Your task to perform on an android device: What is the news today? Image 0: 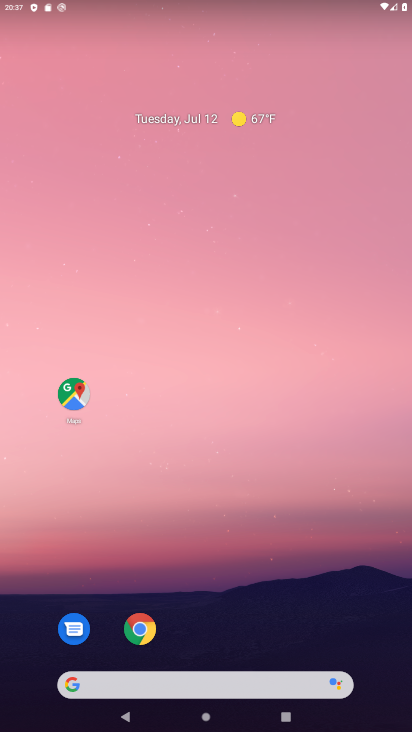
Step 0: drag from (154, 715) to (74, 33)
Your task to perform on an android device: What is the news today? Image 1: 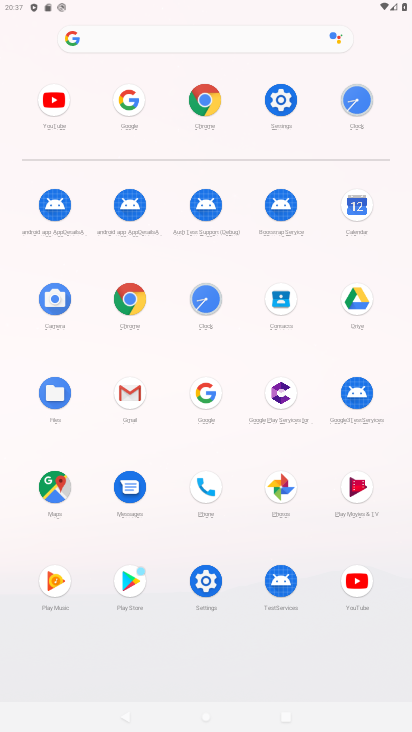
Step 1: click (223, 44)
Your task to perform on an android device: What is the news today? Image 2: 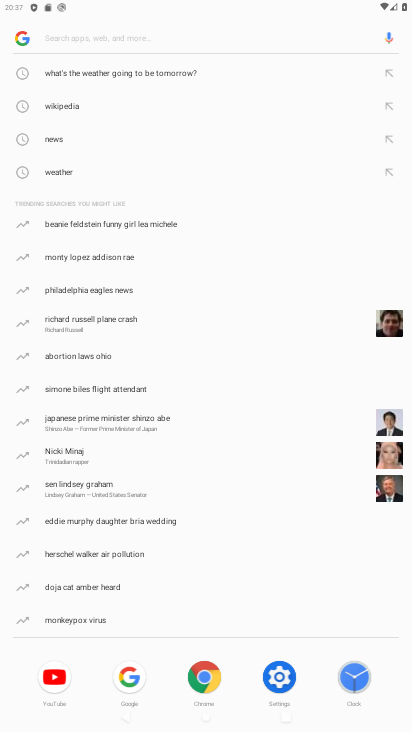
Step 2: type "news today"
Your task to perform on an android device: What is the news today? Image 3: 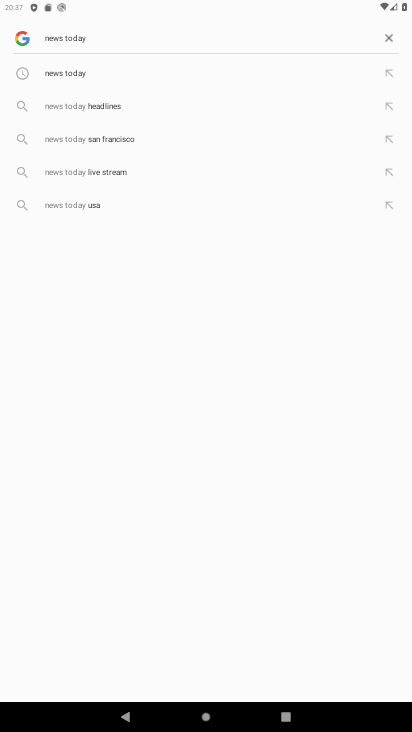
Step 3: click (139, 73)
Your task to perform on an android device: What is the news today? Image 4: 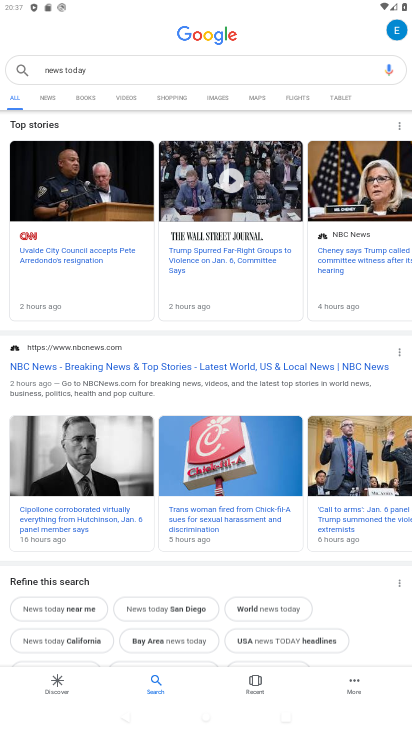
Step 4: task complete